Your task to perform on an android device: check the backup settings in the google photos Image 0: 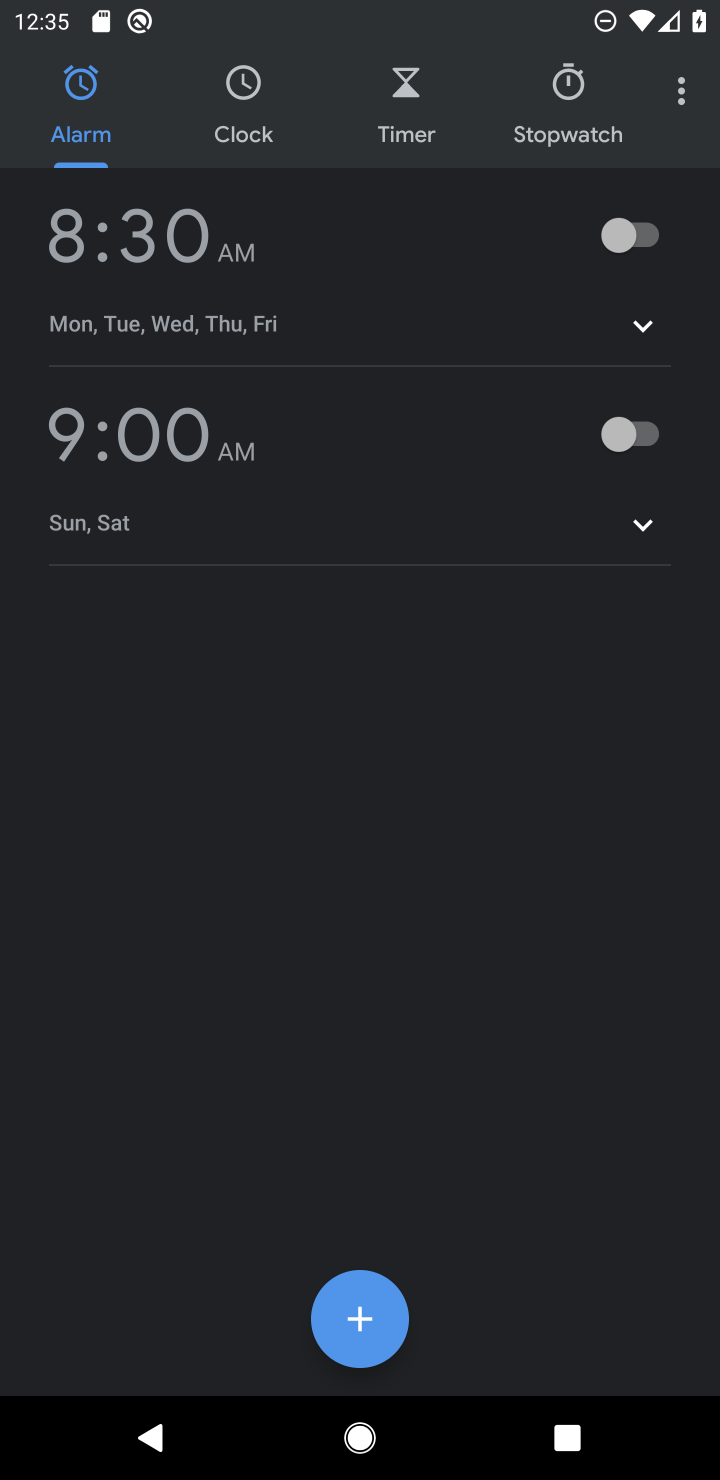
Step 0: press home button
Your task to perform on an android device: check the backup settings in the google photos Image 1: 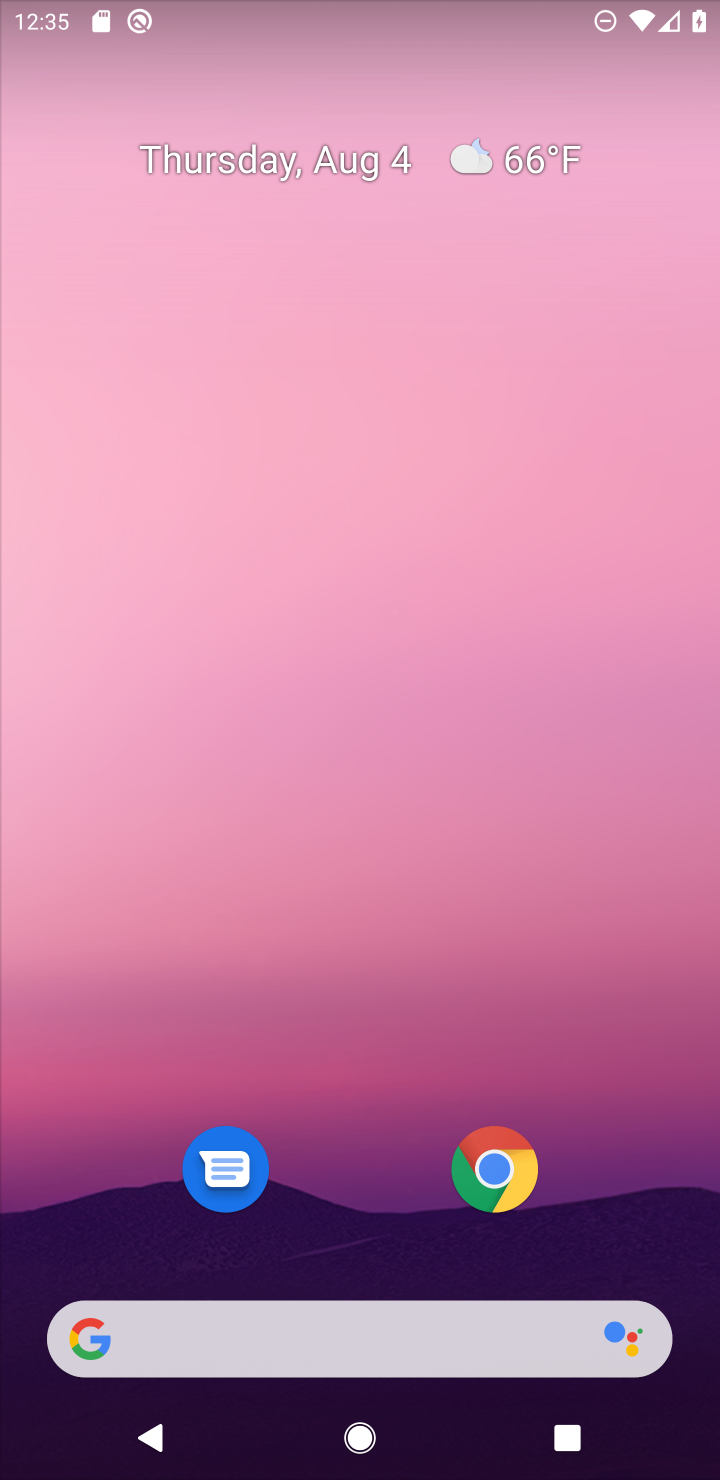
Step 1: drag from (393, 955) to (368, 24)
Your task to perform on an android device: check the backup settings in the google photos Image 2: 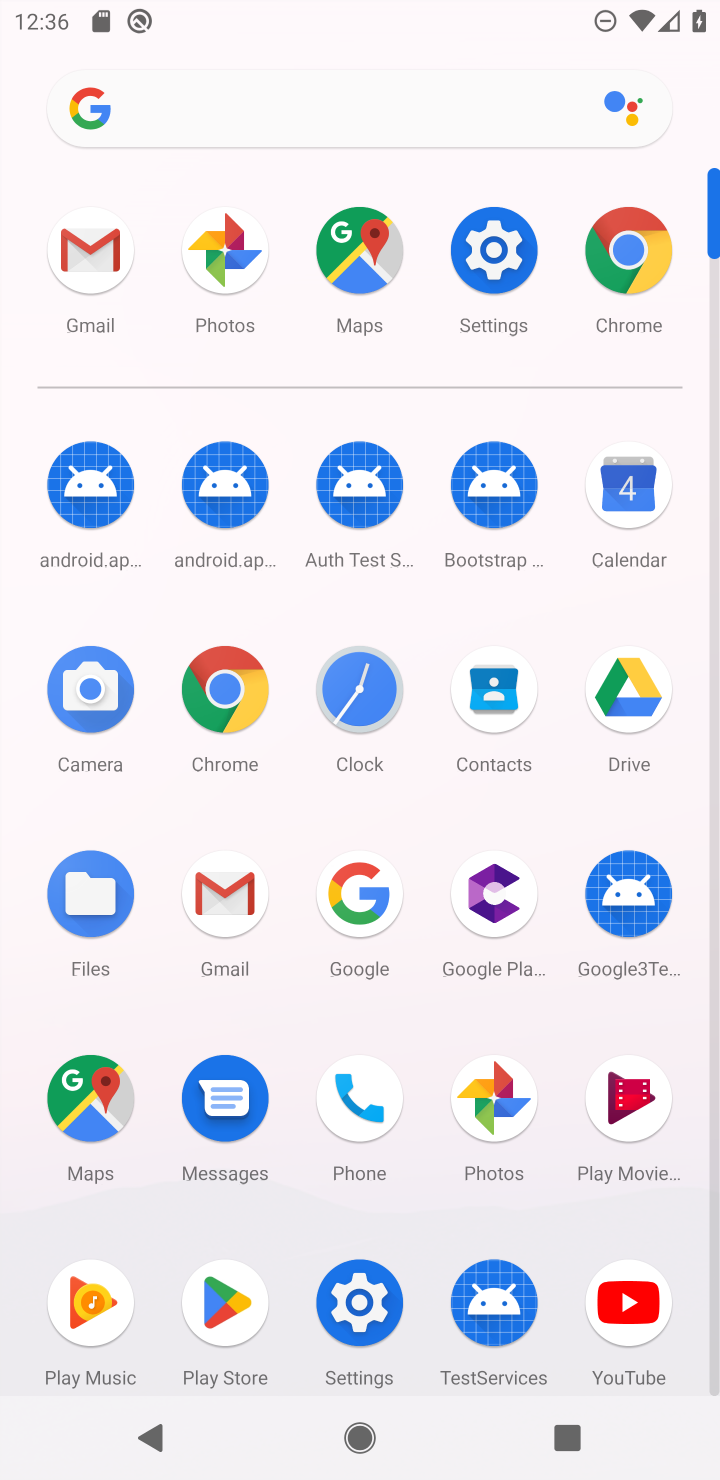
Step 2: click (222, 251)
Your task to perform on an android device: check the backup settings in the google photos Image 3: 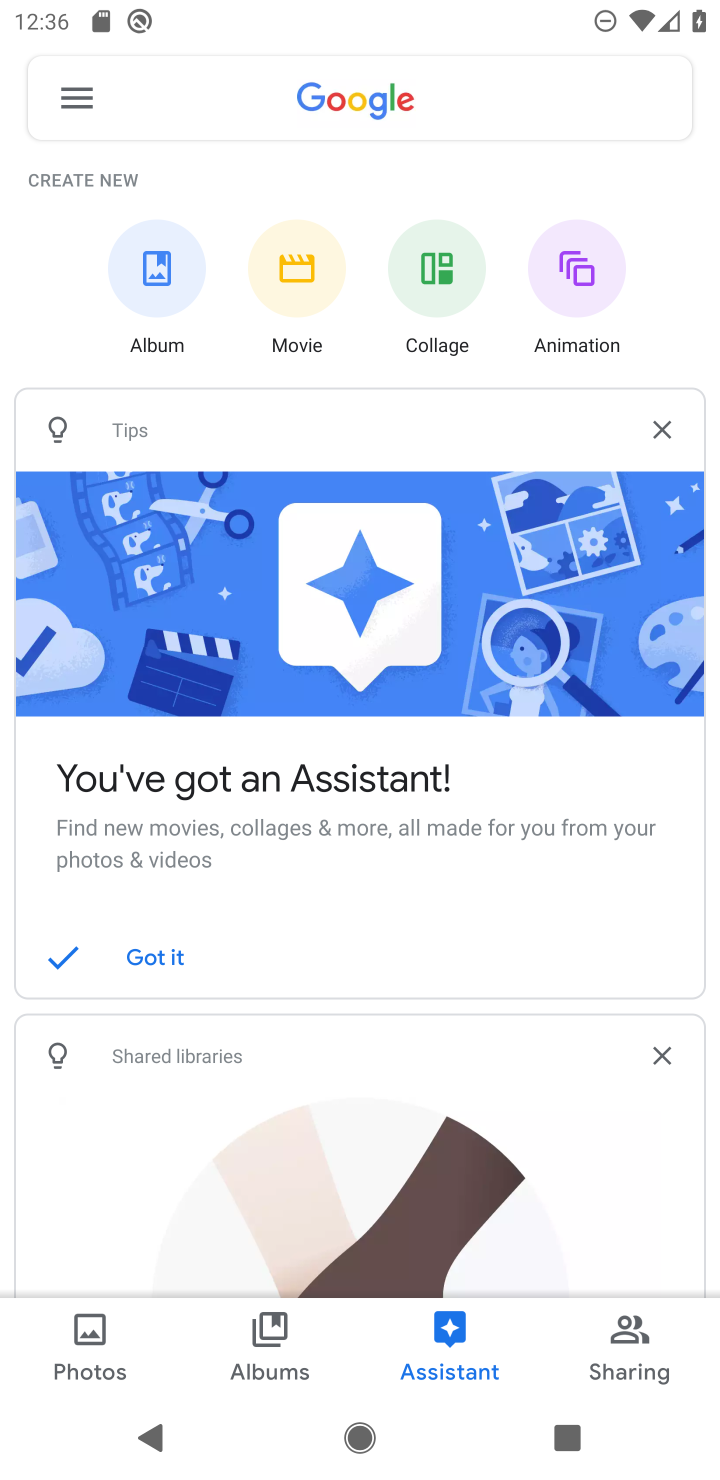
Step 3: click (85, 94)
Your task to perform on an android device: check the backup settings in the google photos Image 4: 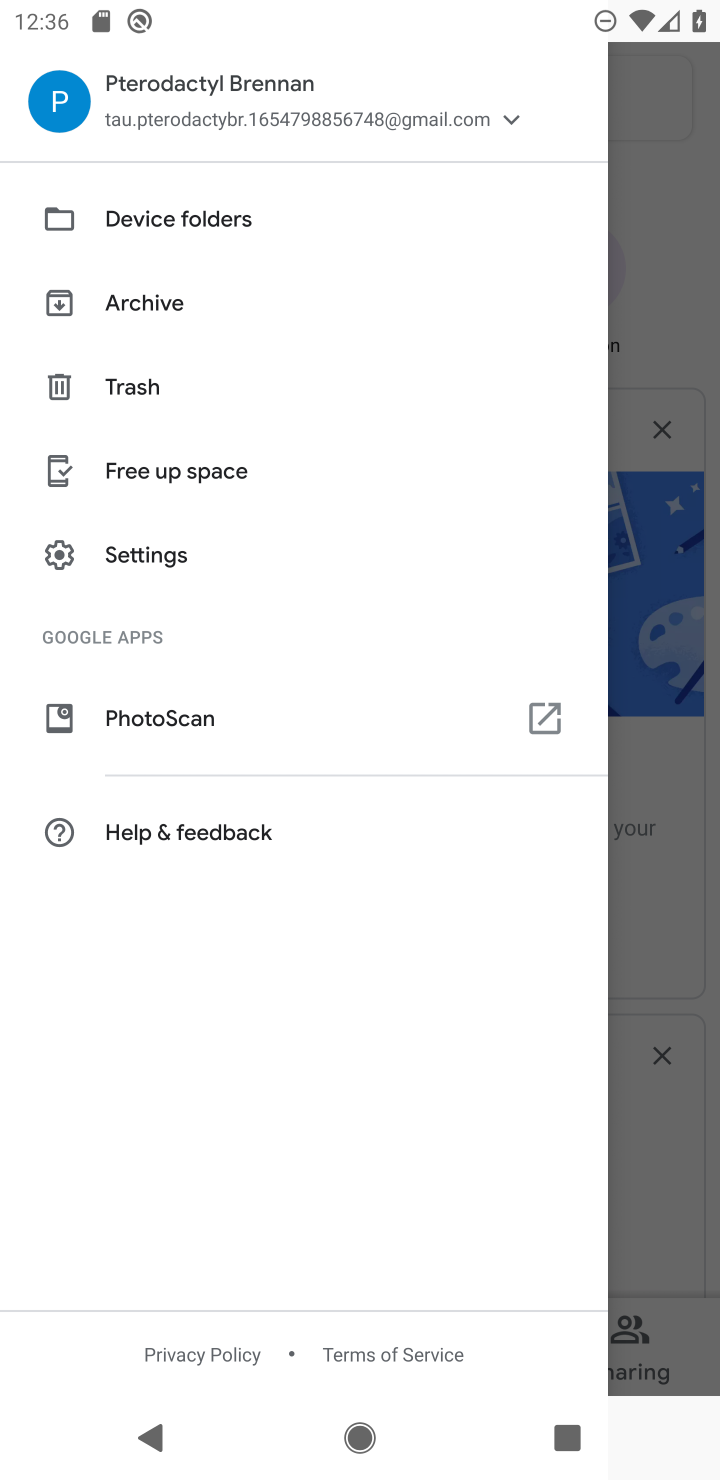
Step 4: click (156, 541)
Your task to perform on an android device: check the backup settings in the google photos Image 5: 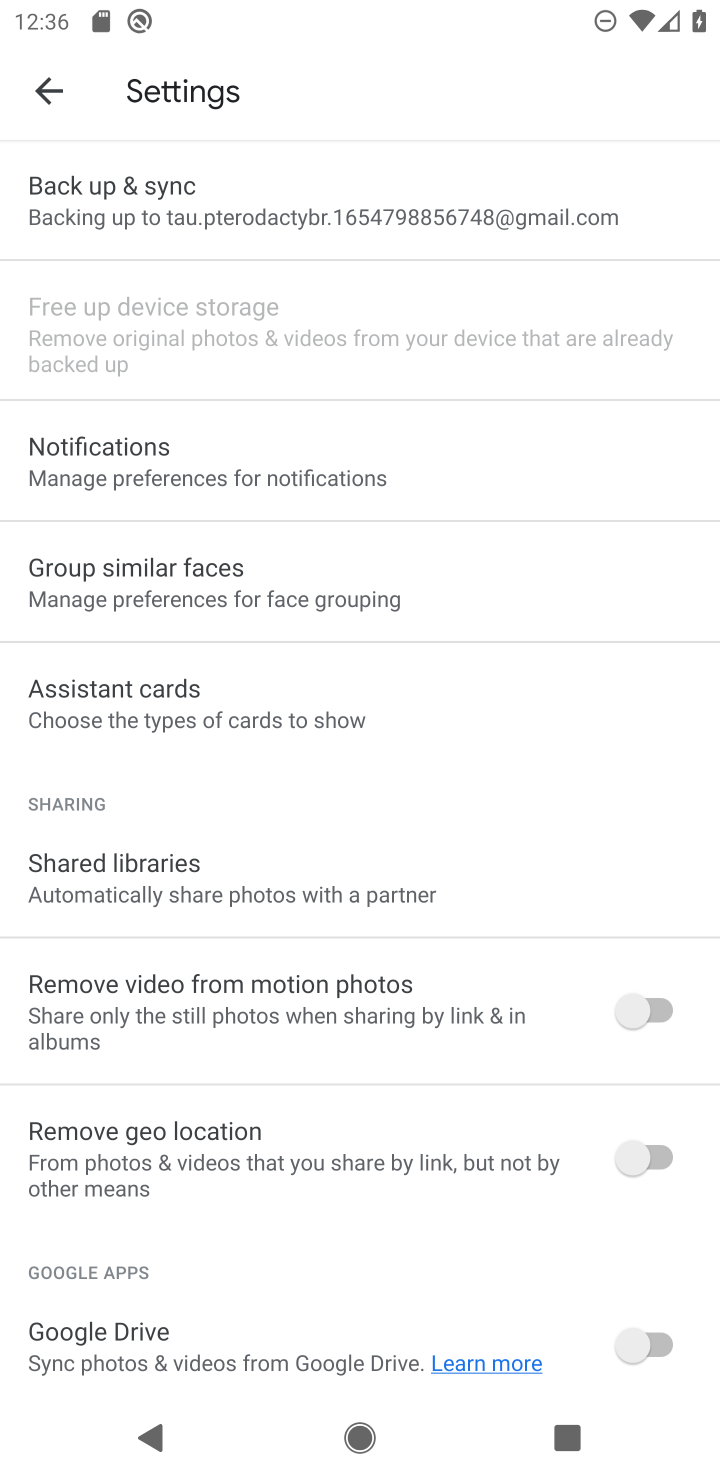
Step 5: click (166, 209)
Your task to perform on an android device: check the backup settings in the google photos Image 6: 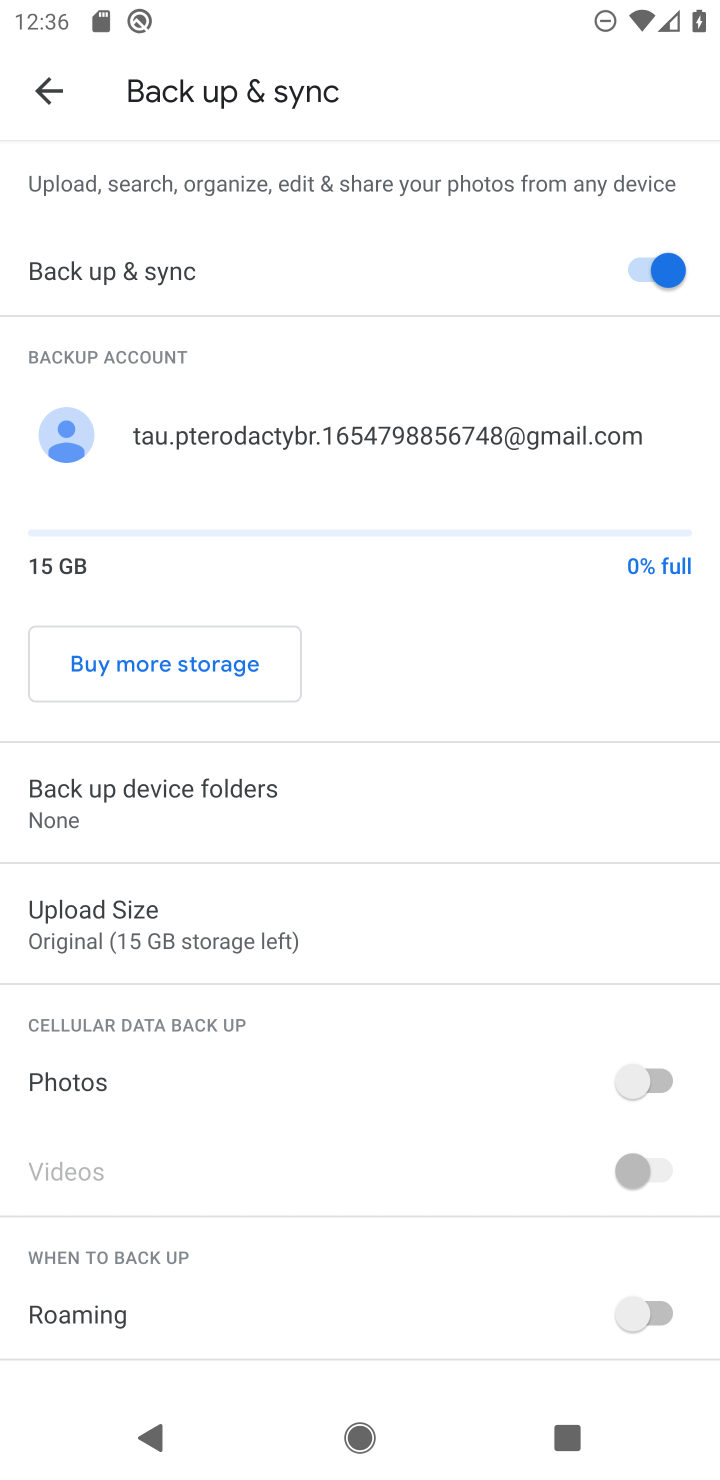
Step 6: task complete